Your task to perform on an android device: add a label to a message in the gmail app Image 0: 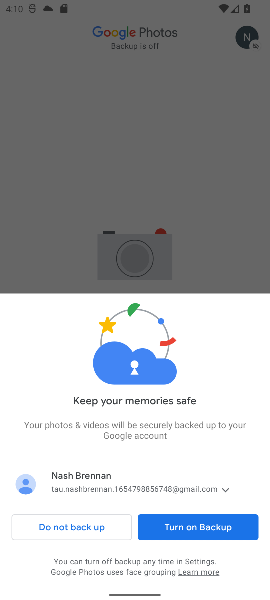
Step 0: press home button
Your task to perform on an android device: add a label to a message in the gmail app Image 1: 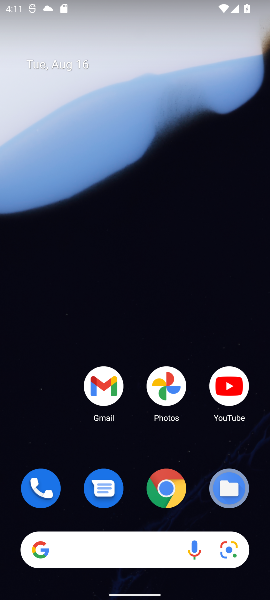
Step 1: drag from (186, 6) to (82, 21)
Your task to perform on an android device: add a label to a message in the gmail app Image 2: 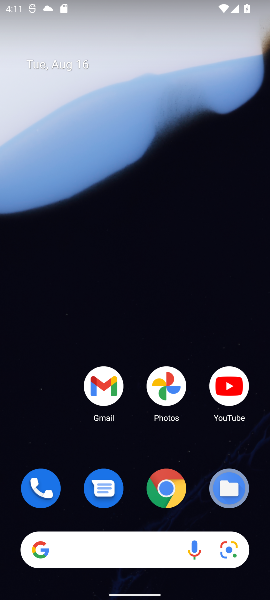
Step 2: click (106, 381)
Your task to perform on an android device: add a label to a message in the gmail app Image 3: 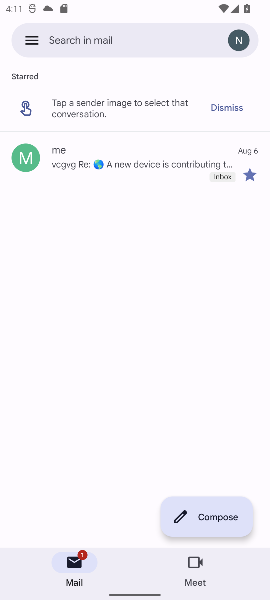
Step 3: task complete